Your task to perform on an android device: turn on the 12-hour format for clock Image 0: 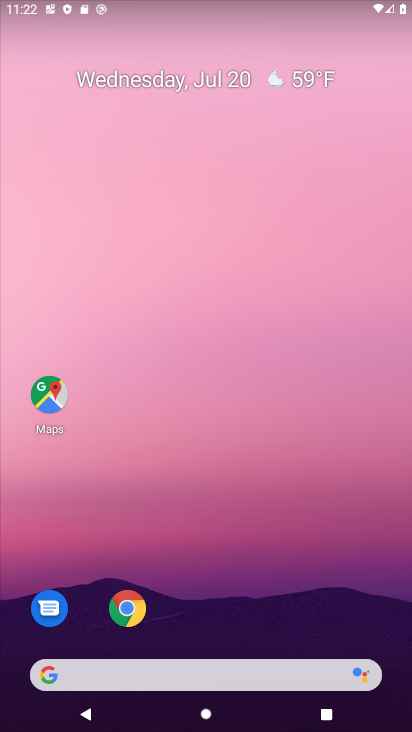
Step 0: click (298, 1)
Your task to perform on an android device: turn on the 12-hour format for clock Image 1: 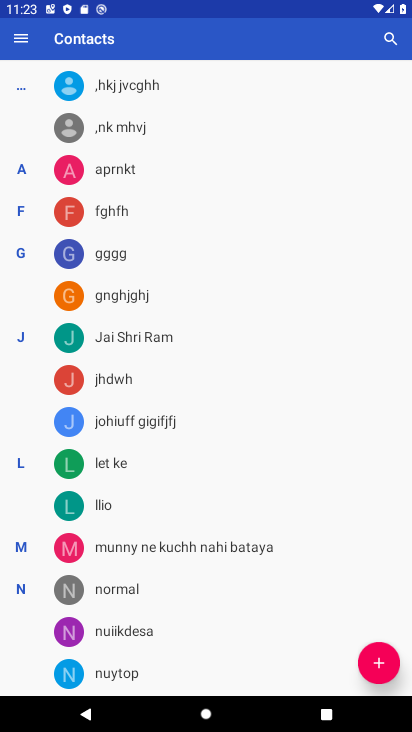
Step 1: press home button
Your task to perform on an android device: turn on the 12-hour format for clock Image 2: 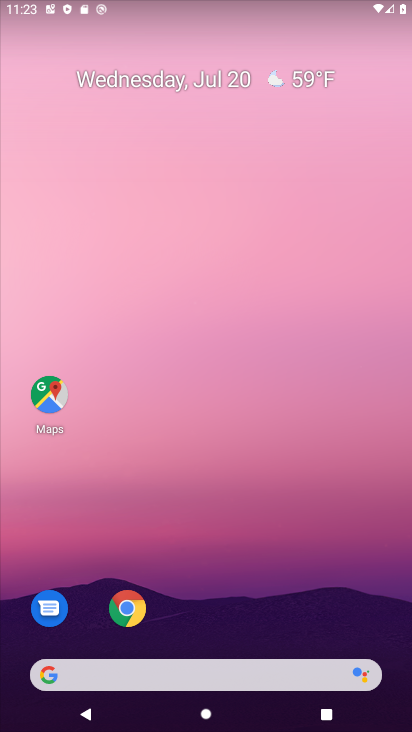
Step 2: drag from (297, 505) to (190, 4)
Your task to perform on an android device: turn on the 12-hour format for clock Image 3: 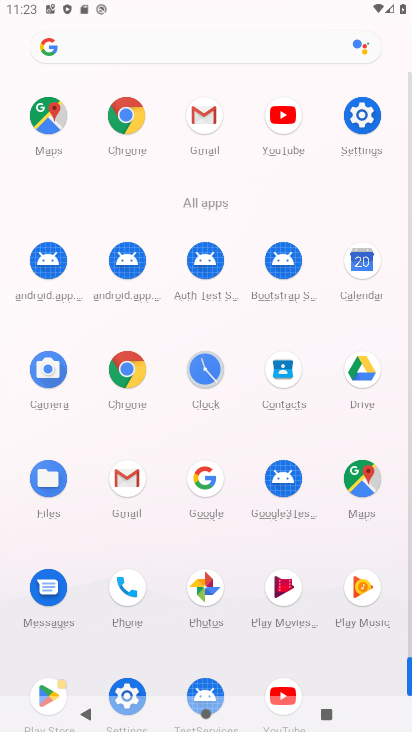
Step 3: click (194, 366)
Your task to perform on an android device: turn on the 12-hour format for clock Image 4: 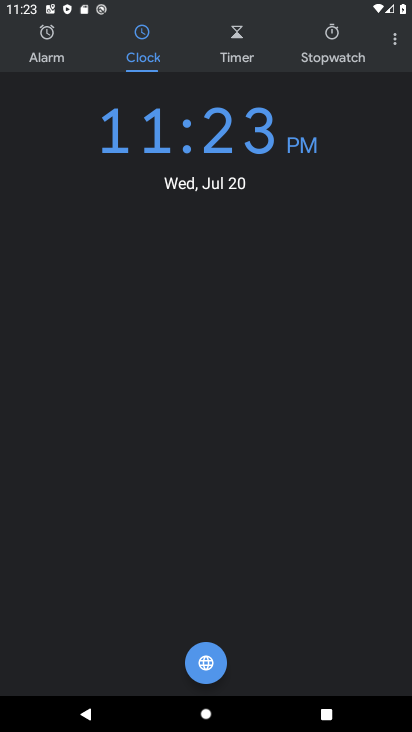
Step 4: click (391, 37)
Your task to perform on an android device: turn on the 12-hour format for clock Image 5: 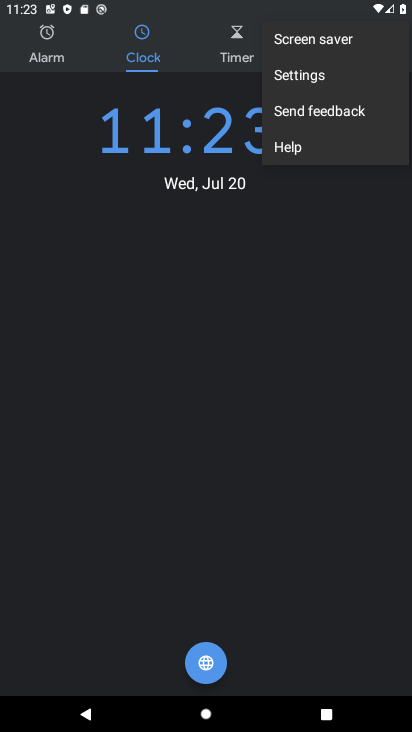
Step 5: click (308, 86)
Your task to perform on an android device: turn on the 12-hour format for clock Image 6: 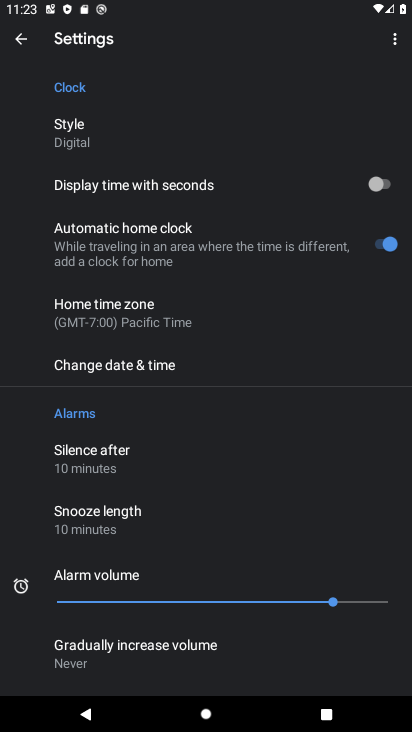
Step 6: click (121, 370)
Your task to perform on an android device: turn on the 12-hour format for clock Image 7: 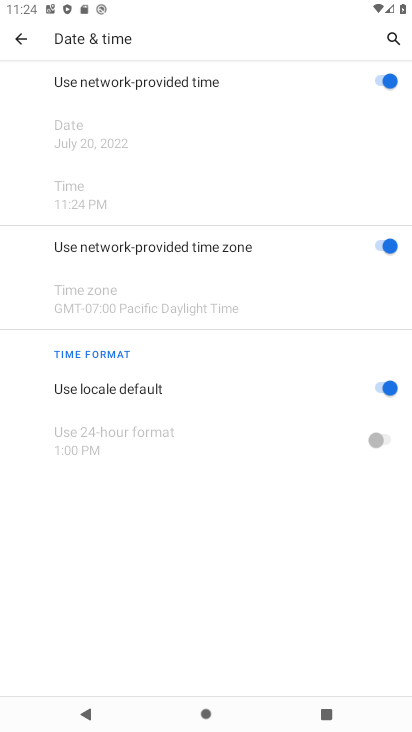
Step 7: task complete